Your task to perform on an android device: What's the weather going to be tomorrow? Image 0: 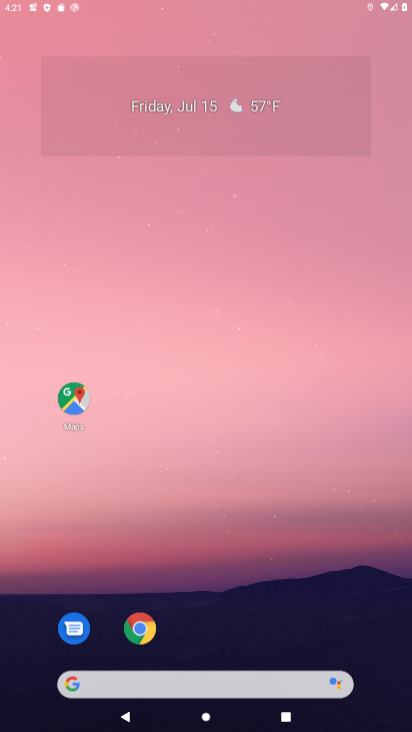
Step 0: press home button
Your task to perform on an android device: What's the weather going to be tomorrow? Image 1: 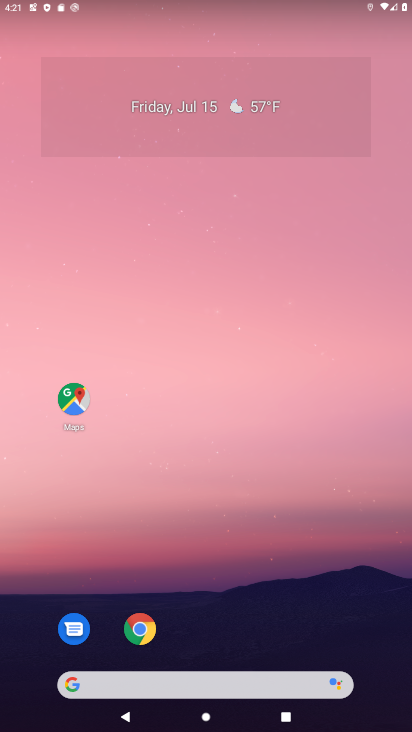
Step 1: click (72, 680)
Your task to perform on an android device: What's the weather going to be tomorrow? Image 2: 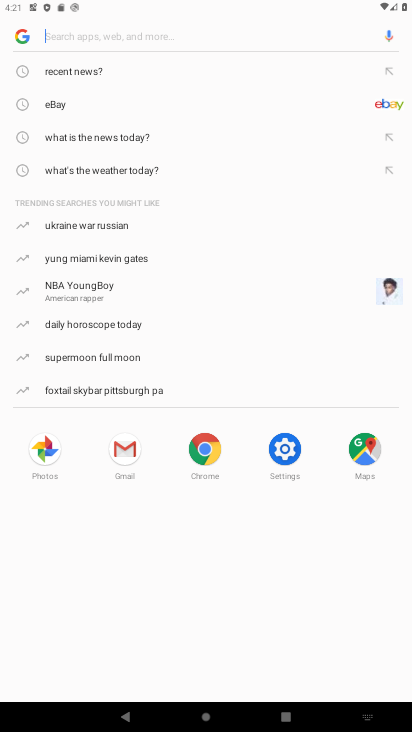
Step 2: type "weather going to be tomorrow?"
Your task to perform on an android device: What's the weather going to be tomorrow? Image 3: 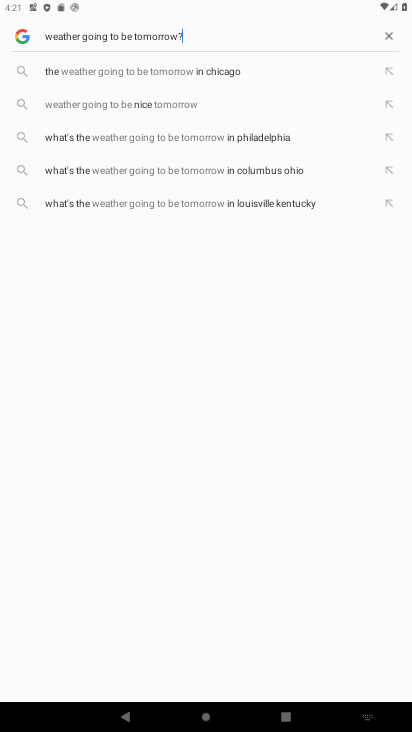
Step 3: press enter
Your task to perform on an android device: What's the weather going to be tomorrow? Image 4: 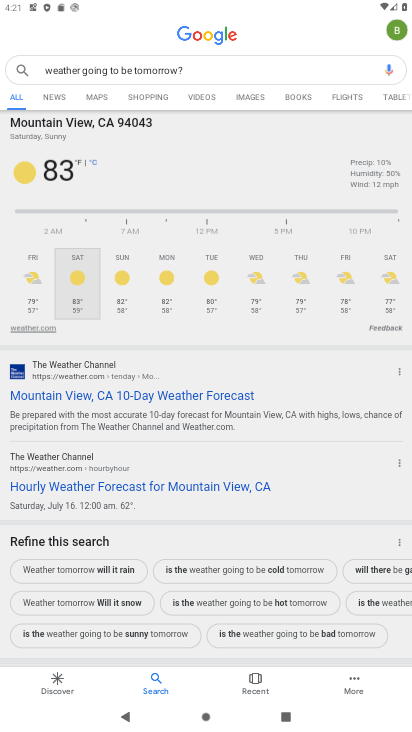
Step 4: task complete